Your task to perform on an android device: Do I have any events this weekend? Image 0: 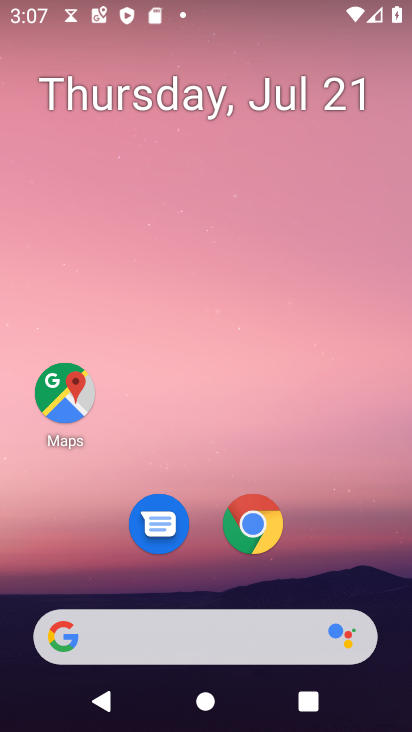
Step 0: press home button
Your task to perform on an android device: Do I have any events this weekend? Image 1: 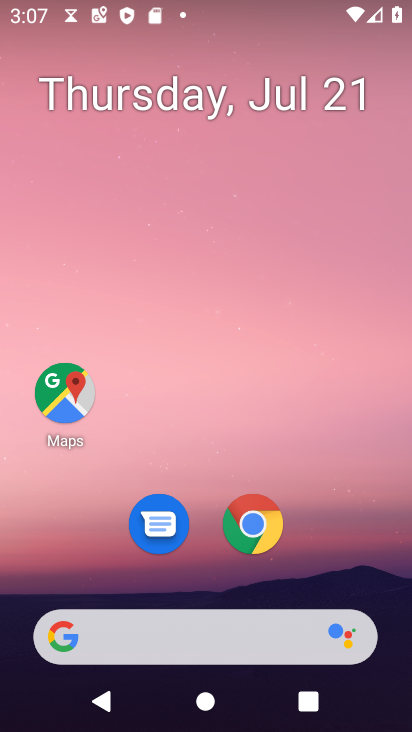
Step 1: drag from (193, 616) to (322, 158)
Your task to perform on an android device: Do I have any events this weekend? Image 2: 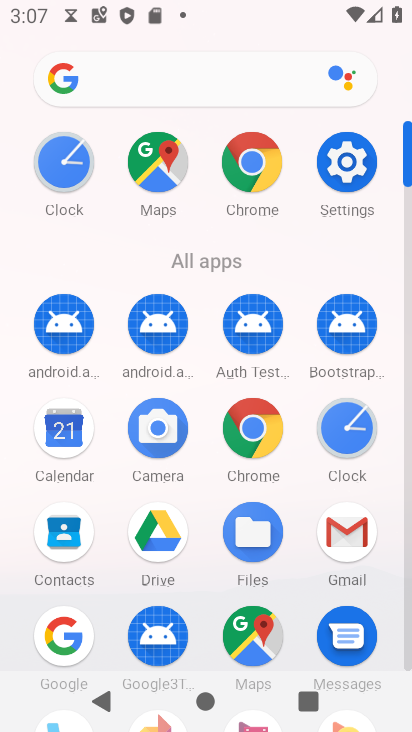
Step 2: click (71, 426)
Your task to perform on an android device: Do I have any events this weekend? Image 3: 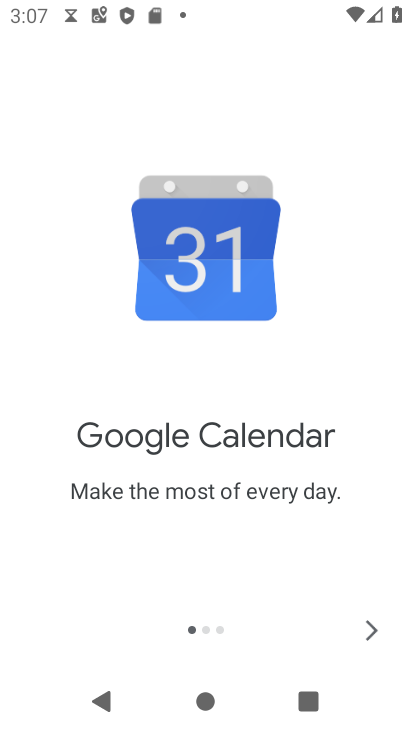
Step 3: click (368, 636)
Your task to perform on an android device: Do I have any events this weekend? Image 4: 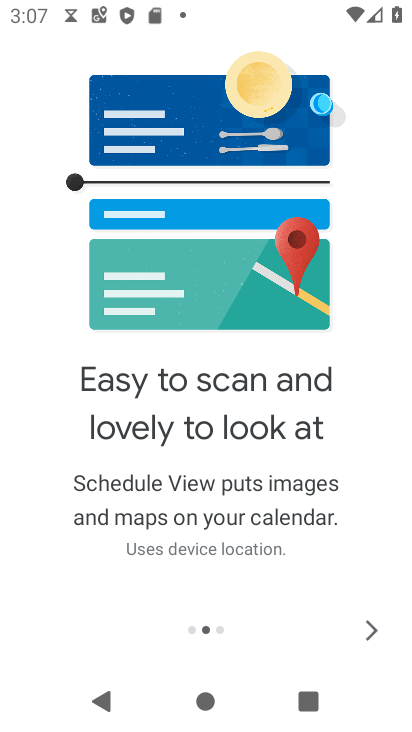
Step 4: click (368, 635)
Your task to perform on an android device: Do I have any events this weekend? Image 5: 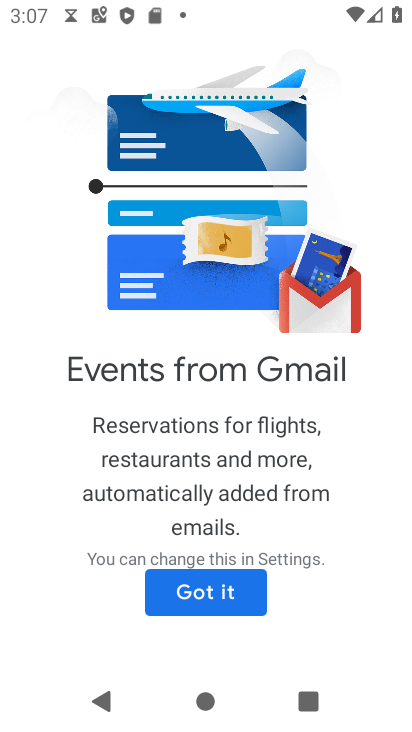
Step 5: click (189, 600)
Your task to perform on an android device: Do I have any events this weekend? Image 6: 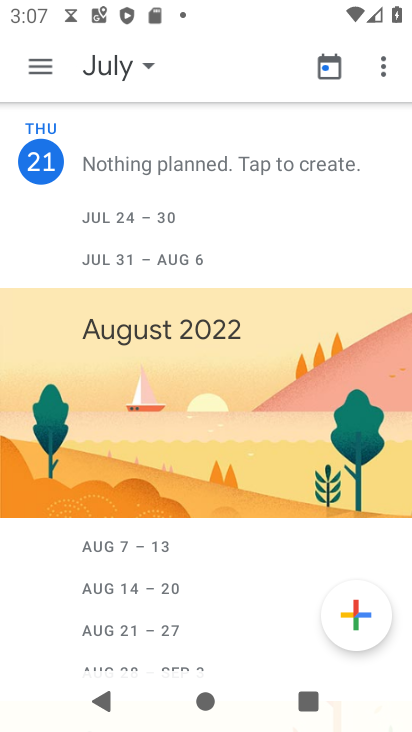
Step 6: click (113, 63)
Your task to perform on an android device: Do I have any events this weekend? Image 7: 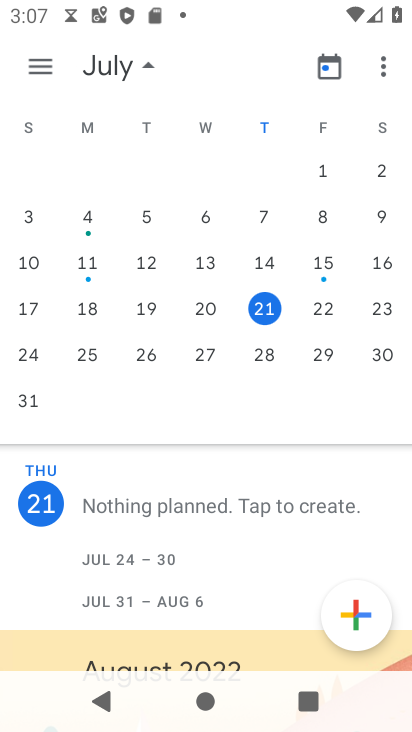
Step 7: click (379, 310)
Your task to perform on an android device: Do I have any events this weekend? Image 8: 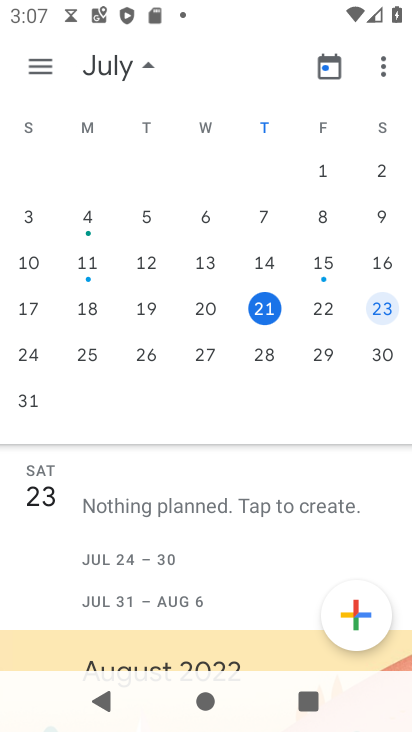
Step 8: click (39, 75)
Your task to perform on an android device: Do I have any events this weekend? Image 9: 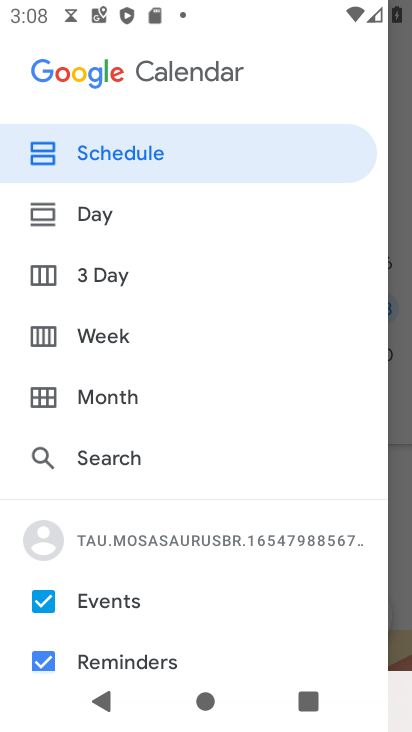
Step 9: click (161, 148)
Your task to perform on an android device: Do I have any events this weekend? Image 10: 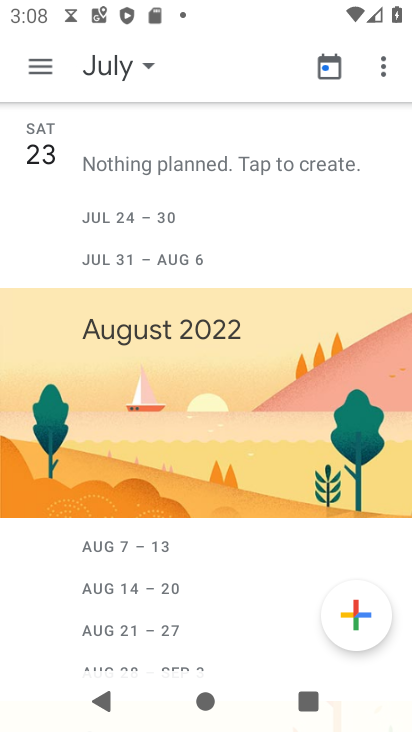
Step 10: task complete